Your task to perform on an android device: Go to Reddit.com Image 0: 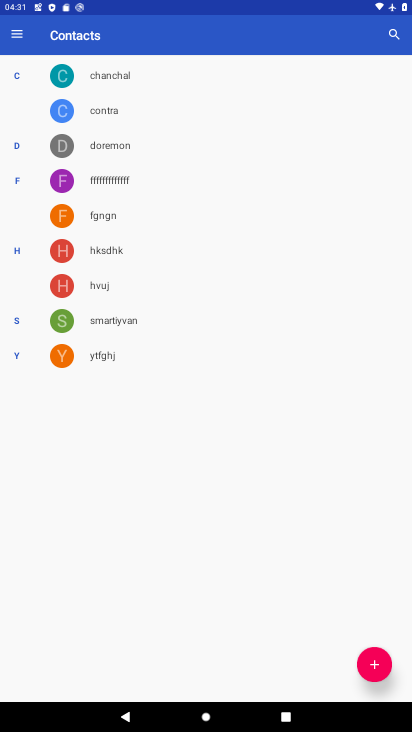
Step 0: press home button
Your task to perform on an android device: Go to Reddit.com Image 1: 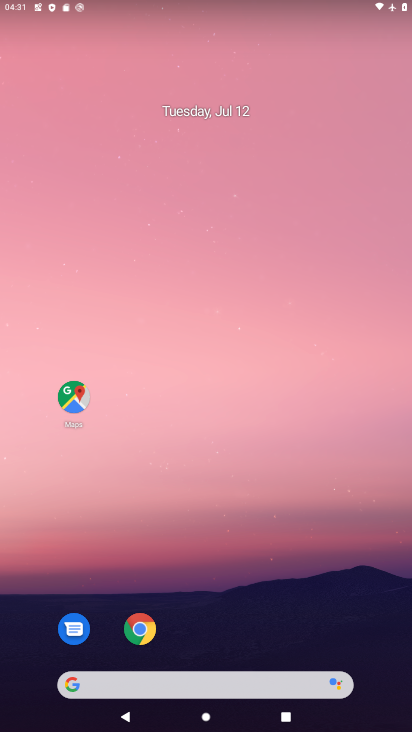
Step 1: drag from (277, 597) to (250, 147)
Your task to perform on an android device: Go to Reddit.com Image 2: 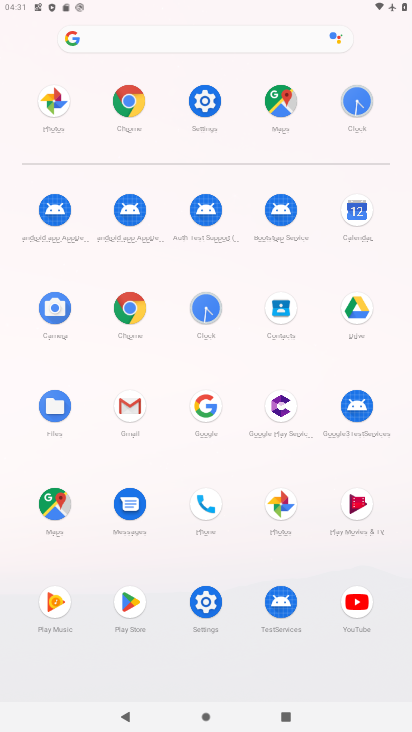
Step 2: click (123, 311)
Your task to perform on an android device: Go to Reddit.com Image 3: 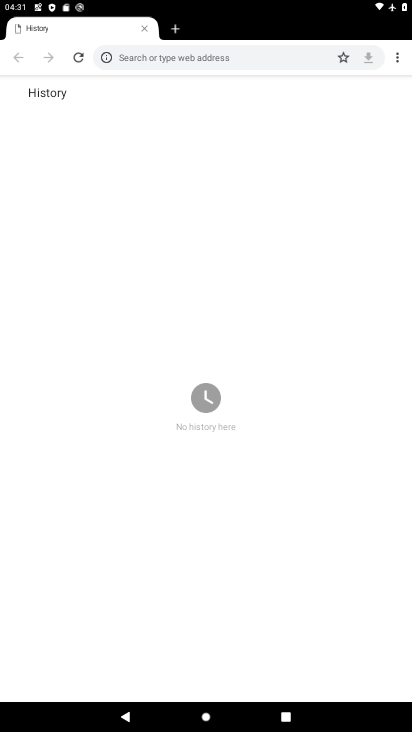
Step 3: click (217, 52)
Your task to perform on an android device: Go to Reddit.com Image 4: 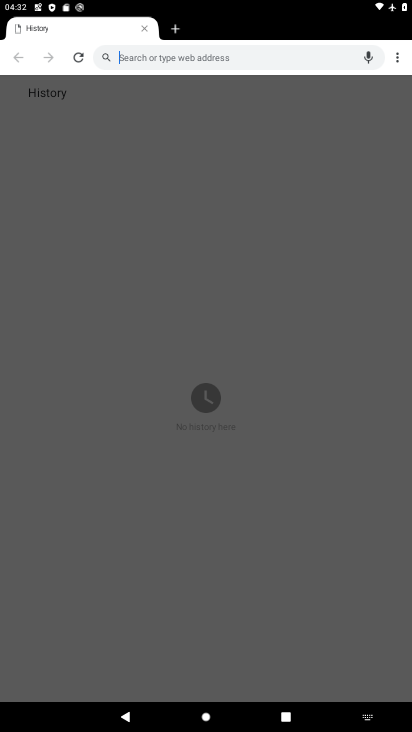
Step 4: type "reddit.com"
Your task to perform on an android device: Go to Reddit.com Image 5: 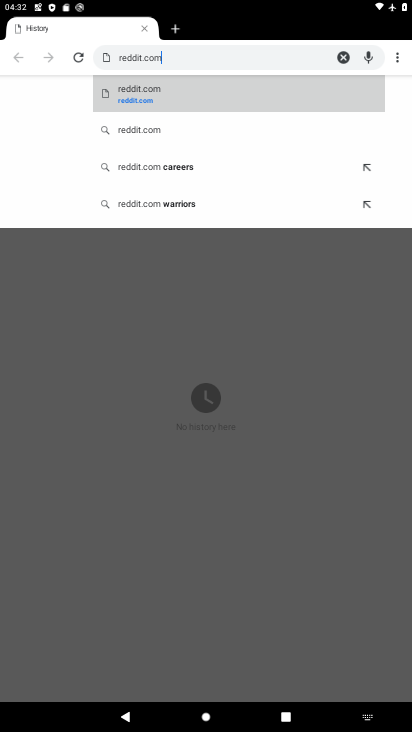
Step 5: click (152, 103)
Your task to perform on an android device: Go to Reddit.com Image 6: 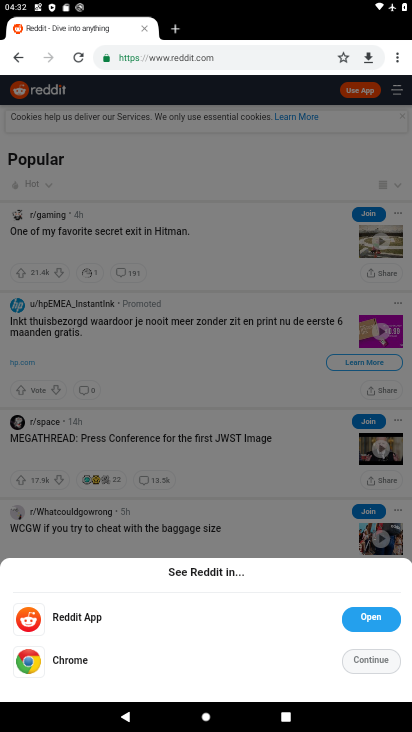
Step 6: task complete